Your task to perform on an android device: turn pop-ups on in chrome Image 0: 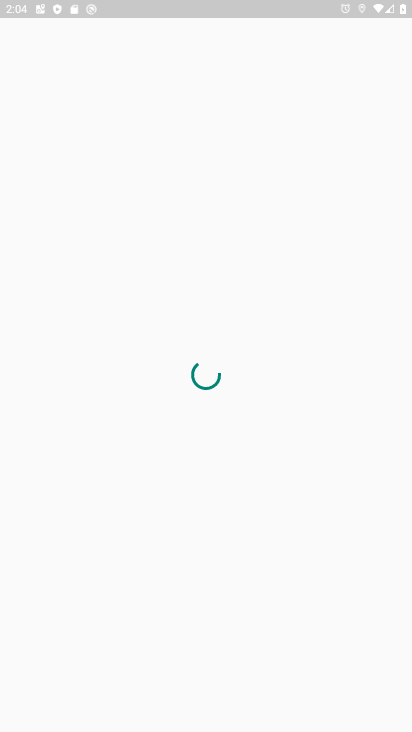
Step 0: press home button
Your task to perform on an android device: turn pop-ups on in chrome Image 1: 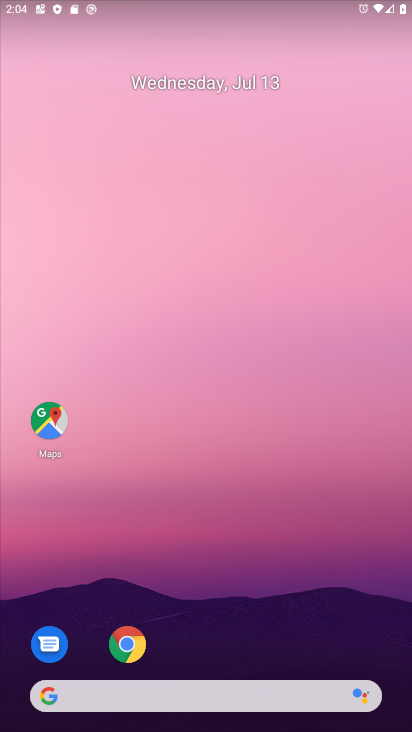
Step 1: click (138, 654)
Your task to perform on an android device: turn pop-ups on in chrome Image 2: 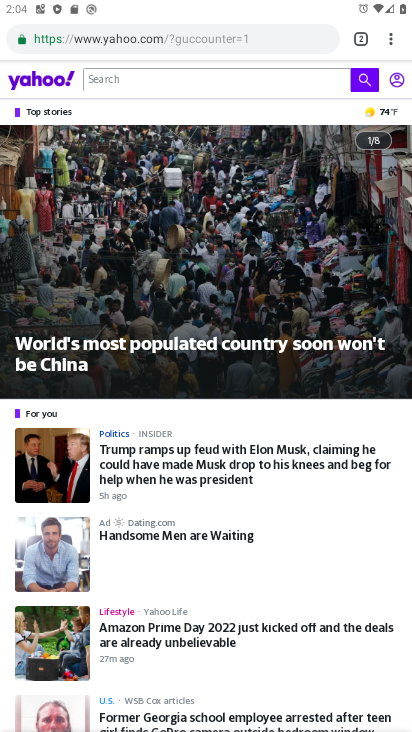
Step 2: drag from (391, 30) to (271, 465)
Your task to perform on an android device: turn pop-ups on in chrome Image 3: 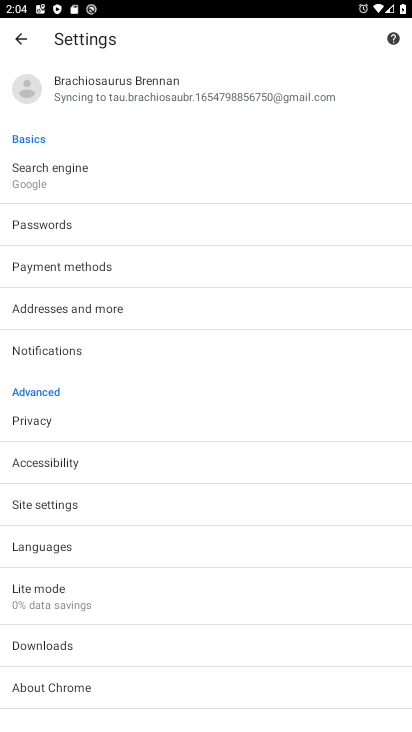
Step 3: click (45, 503)
Your task to perform on an android device: turn pop-ups on in chrome Image 4: 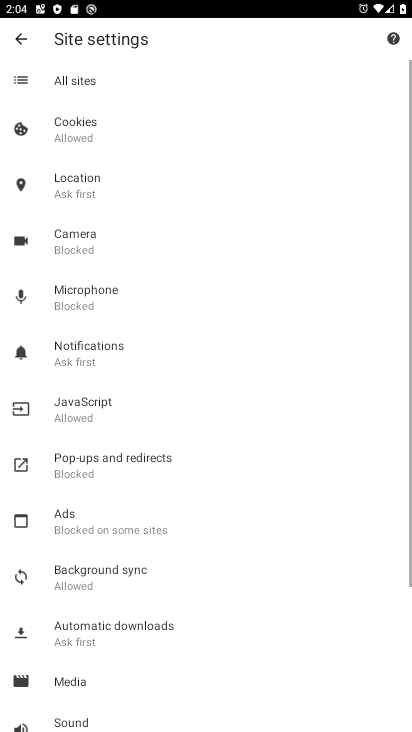
Step 4: click (92, 465)
Your task to perform on an android device: turn pop-ups on in chrome Image 5: 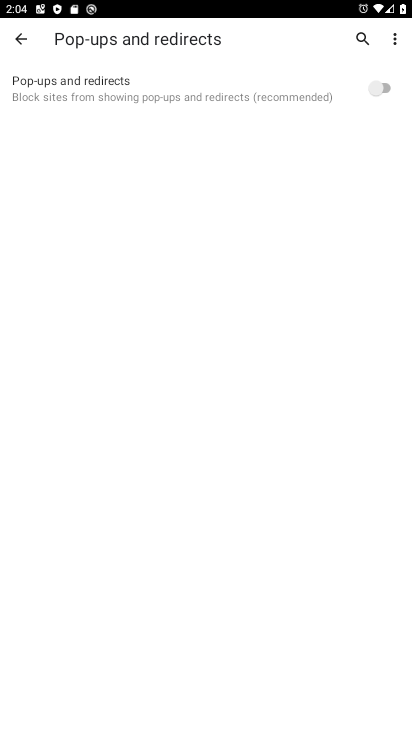
Step 5: click (378, 82)
Your task to perform on an android device: turn pop-ups on in chrome Image 6: 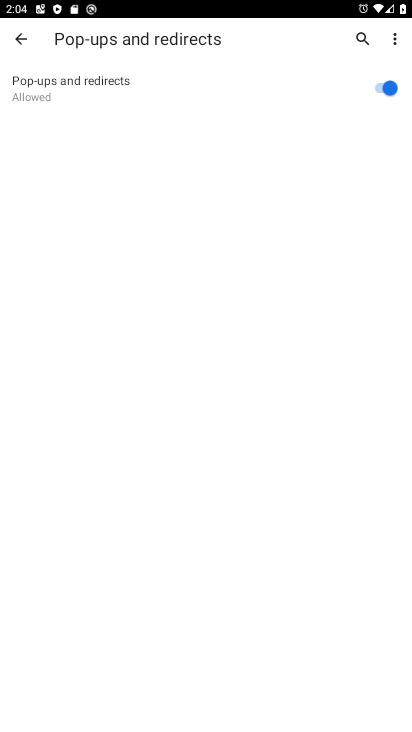
Step 6: task complete